Your task to perform on an android device: Open Wikipedia Image 0: 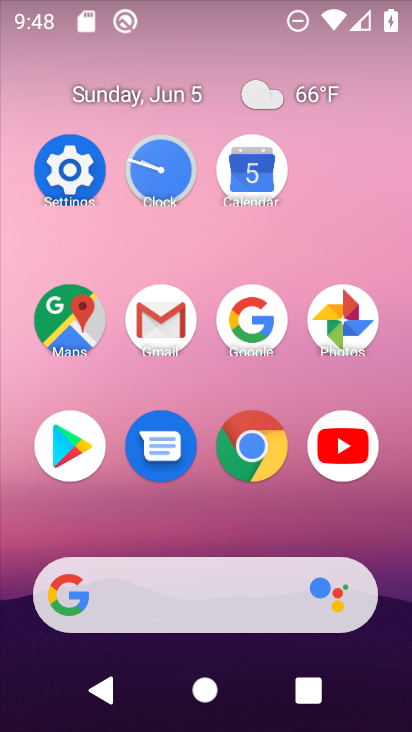
Step 0: click (265, 447)
Your task to perform on an android device: Open Wikipedia Image 1: 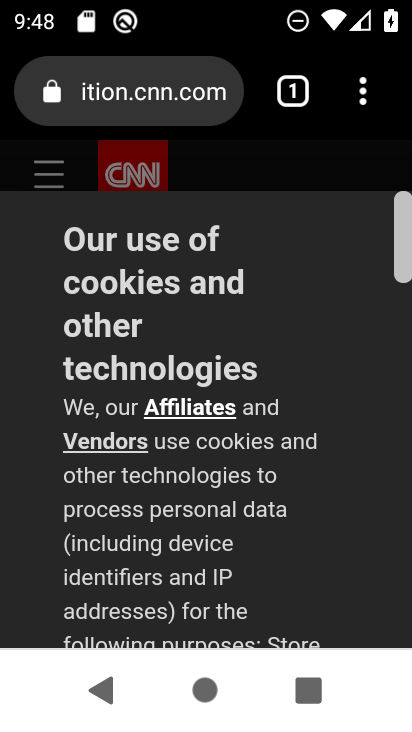
Step 1: click (297, 115)
Your task to perform on an android device: Open Wikipedia Image 2: 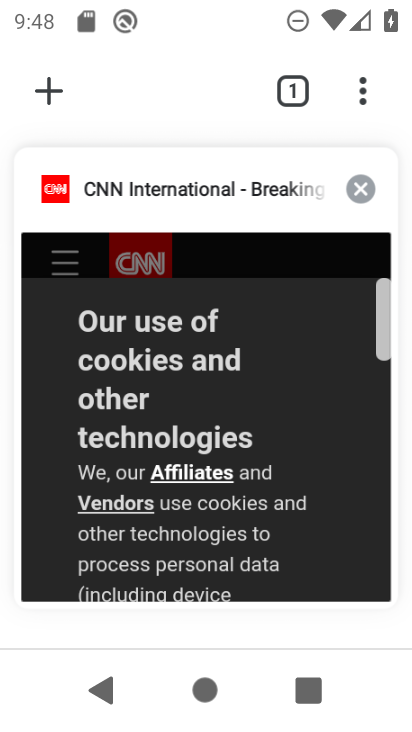
Step 2: click (50, 89)
Your task to perform on an android device: Open Wikipedia Image 3: 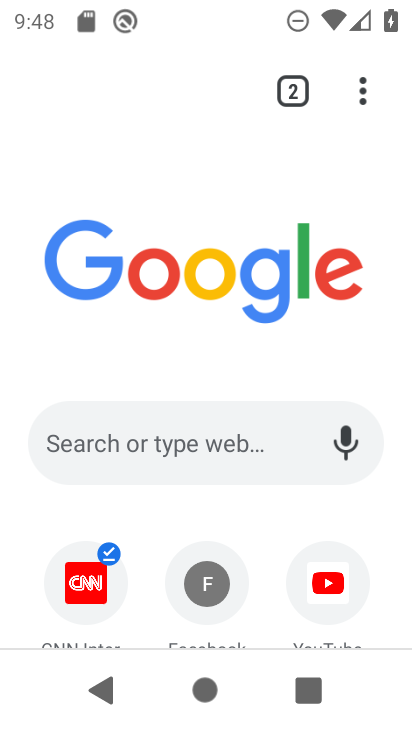
Step 3: drag from (263, 540) to (220, 284)
Your task to perform on an android device: Open Wikipedia Image 4: 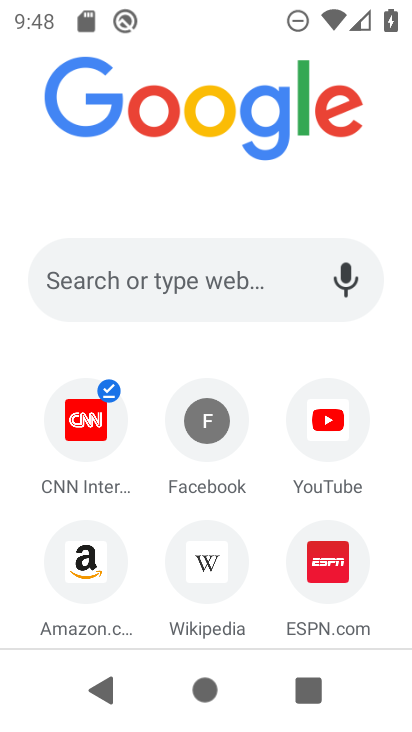
Step 4: click (206, 571)
Your task to perform on an android device: Open Wikipedia Image 5: 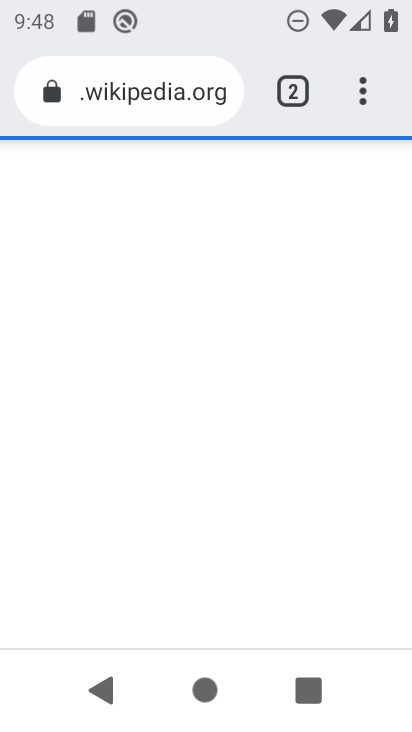
Step 5: task complete